Your task to perform on an android device: open app "DoorDash - Food Delivery" (install if not already installed) Image 0: 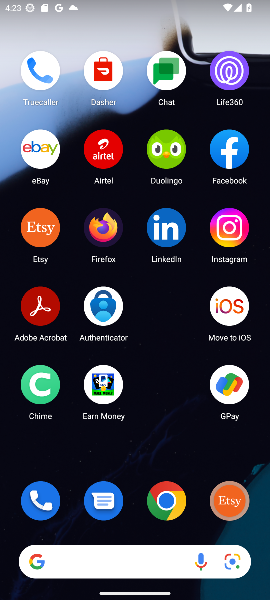
Step 0: press home button
Your task to perform on an android device: open app "DoorDash - Food Delivery" (install if not already installed) Image 1: 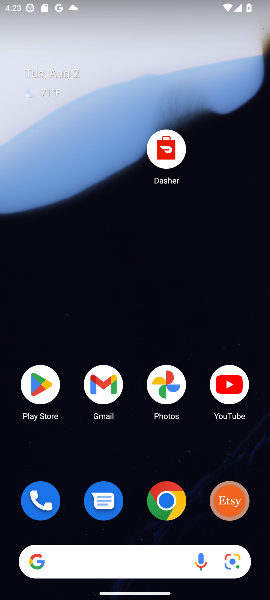
Step 1: click (40, 386)
Your task to perform on an android device: open app "DoorDash - Food Delivery" (install if not already installed) Image 2: 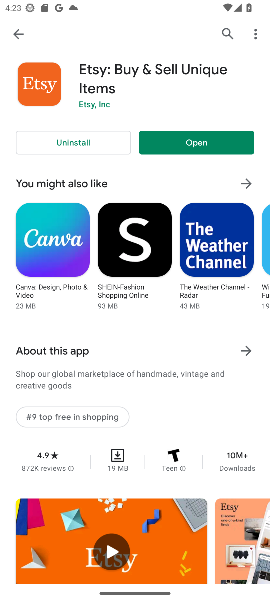
Step 2: click (224, 27)
Your task to perform on an android device: open app "DoorDash - Food Delivery" (install if not already installed) Image 3: 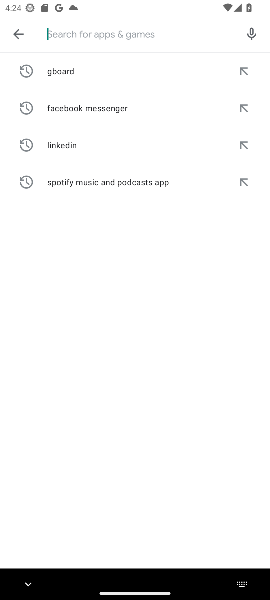
Step 3: type "DoorDash - Food Delivery"
Your task to perform on an android device: open app "DoorDash - Food Delivery" (install if not already installed) Image 4: 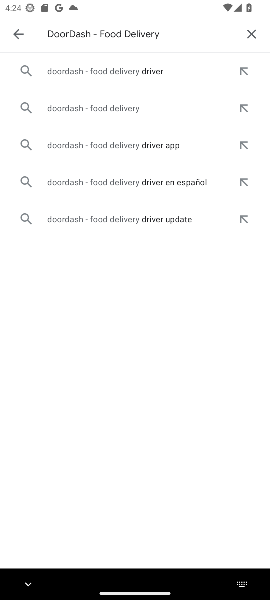
Step 4: click (86, 78)
Your task to perform on an android device: open app "DoorDash - Food Delivery" (install if not already installed) Image 5: 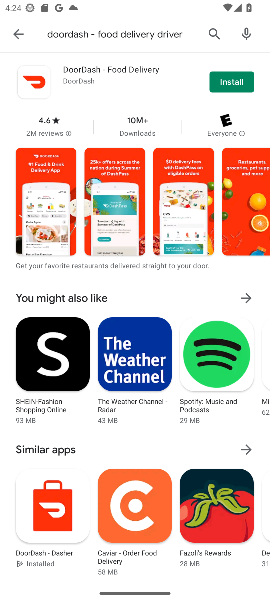
Step 5: click (240, 95)
Your task to perform on an android device: open app "DoorDash - Food Delivery" (install if not already installed) Image 6: 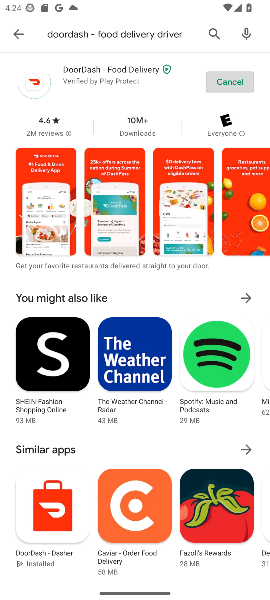
Step 6: click (240, 86)
Your task to perform on an android device: open app "DoorDash - Food Delivery" (install if not already installed) Image 7: 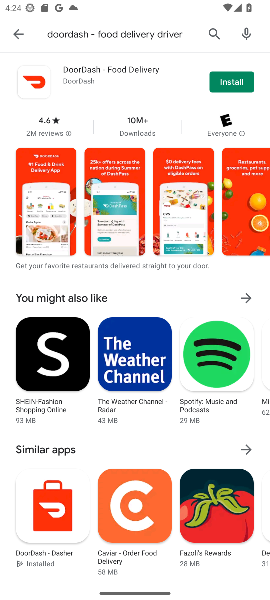
Step 7: click (240, 86)
Your task to perform on an android device: open app "DoorDash - Food Delivery" (install if not already installed) Image 8: 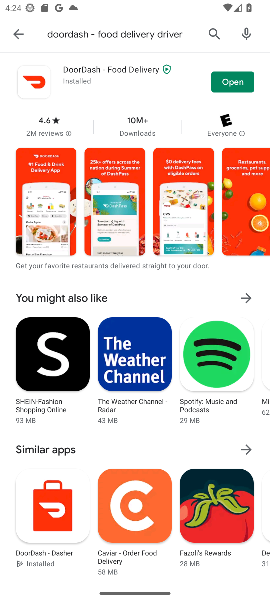
Step 8: click (229, 89)
Your task to perform on an android device: open app "DoorDash - Food Delivery" (install if not already installed) Image 9: 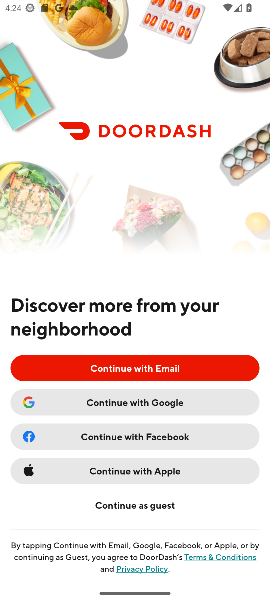
Step 9: task complete